Your task to perform on an android device: change timer sound Image 0: 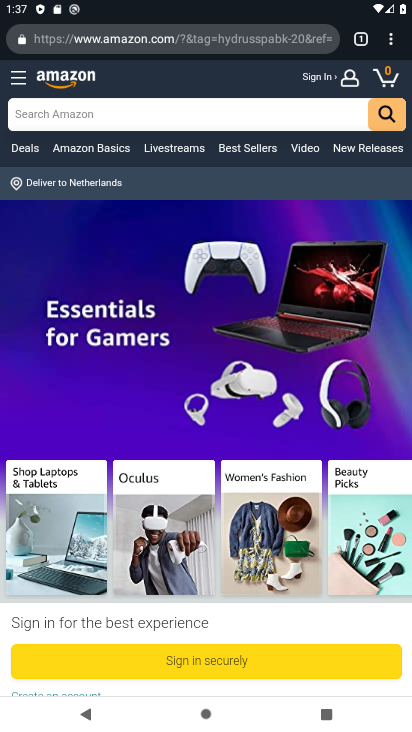
Step 0: press back button
Your task to perform on an android device: change timer sound Image 1: 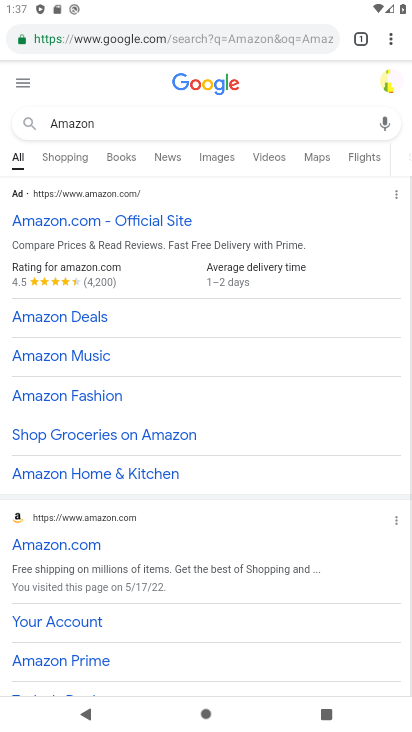
Step 1: press back button
Your task to perform on an android device: change timer sound Image 2: 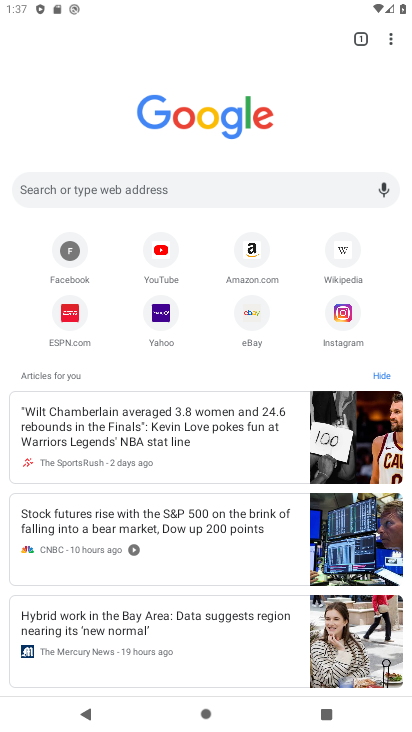
Step 2: press back button
Your task to perform on an android device: change timer sound Image 3: 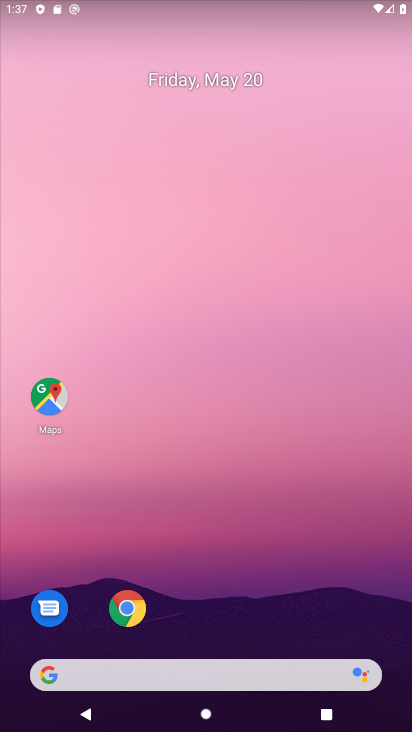
Step 3: drag from (240, 570) to (200, 64)
Your task to perform on an android device: change timer sound Image 4: 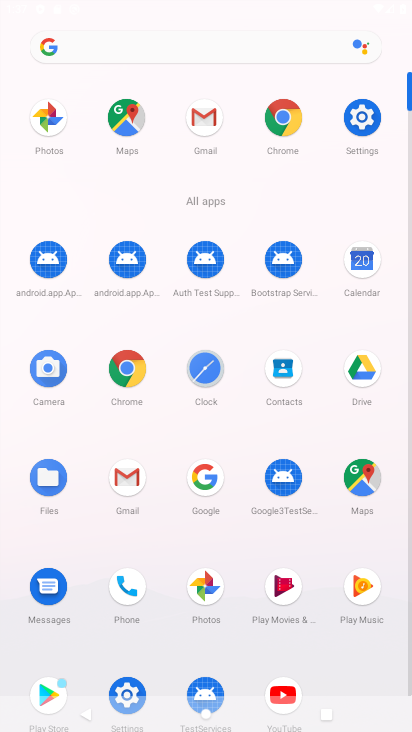
Step 4: click (206, 368)
Your task to perform on an android device: change timer sound Image 5: 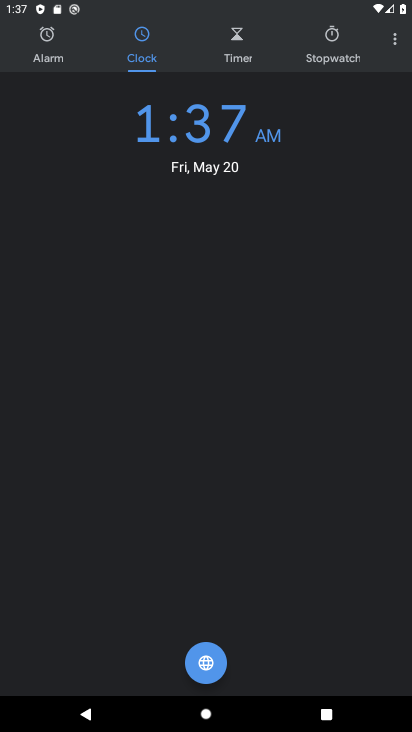
Step 5: click (396, 42)
Your task to perform on an android device: change timer sound Image 6: 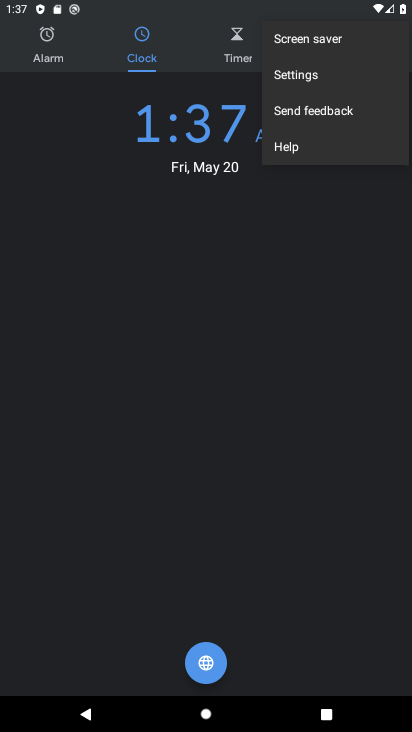
Step 6: click (293, 78)
Your task to perform on an android device: change timer sound Image 7: 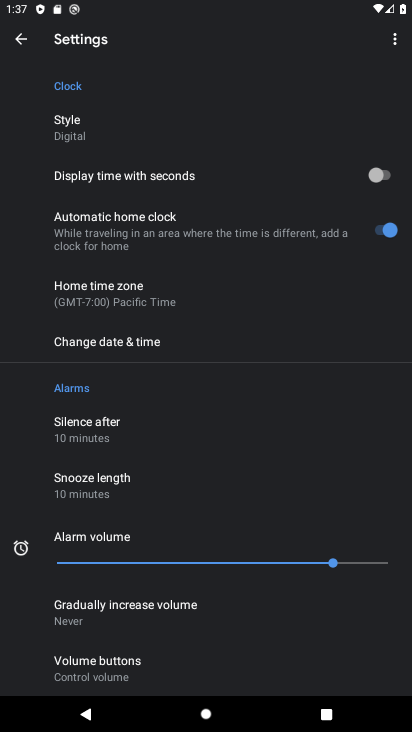
Step 7: drag from (174, 445) to (206, 323)
Your task to perform on an android device: change timer sound Image 8: 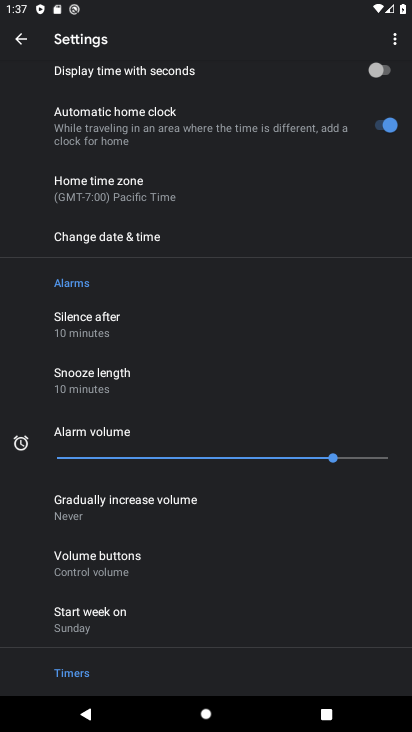
Step 8: drag from (185, 585) to (235, 395)
Your task to perform on an android device: change timer sound Image 9: 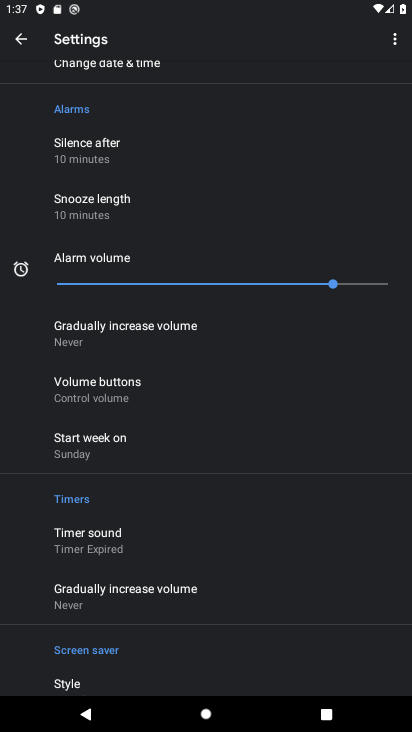
Step 9: click (98, 542)
Your task to perform on an android device: change timer sound Image 10: 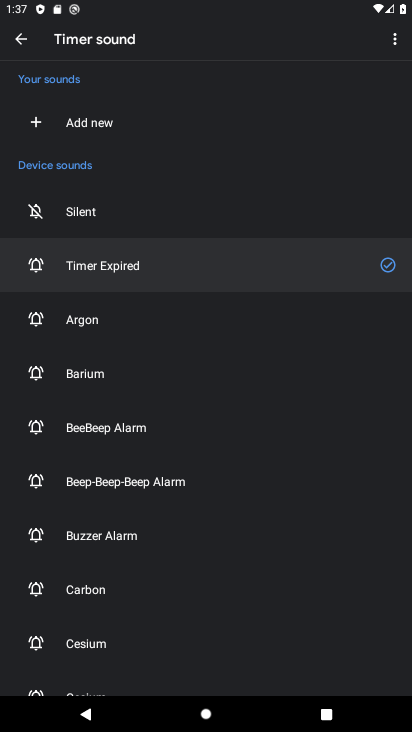
Step 10: drag from (172, 582) to (177, 332)
Your task to perform on an android device: change timer sound Image 11: 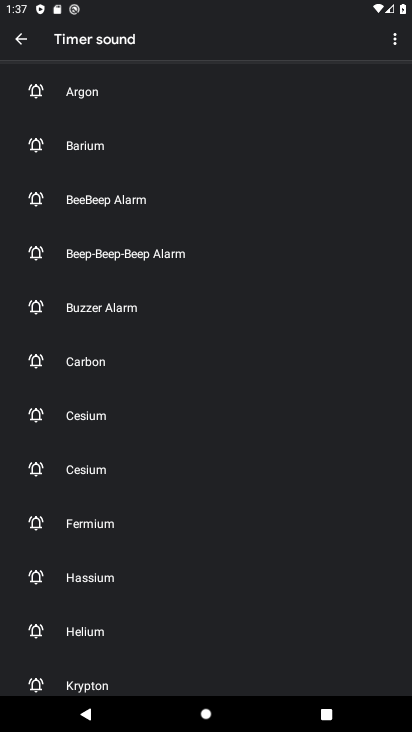
Step 11: drag from (185, 573) to (209, 299)
Your task to perform on an android device: change timer sound Image 12: 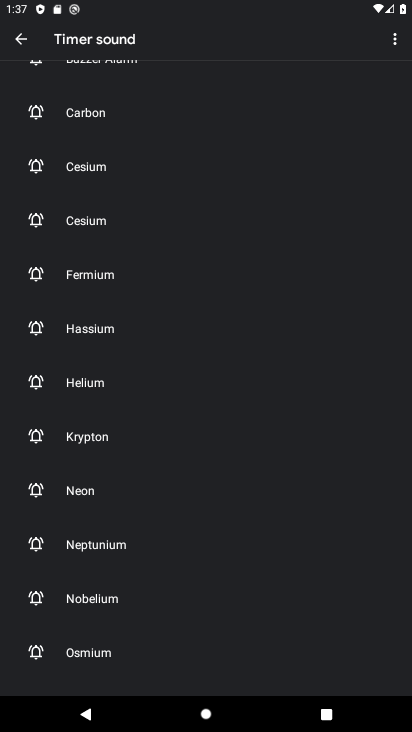
Step 12: drag from (188, 576) to (205, 291)
Your task to perform on an android device: change timer sound Image 13: 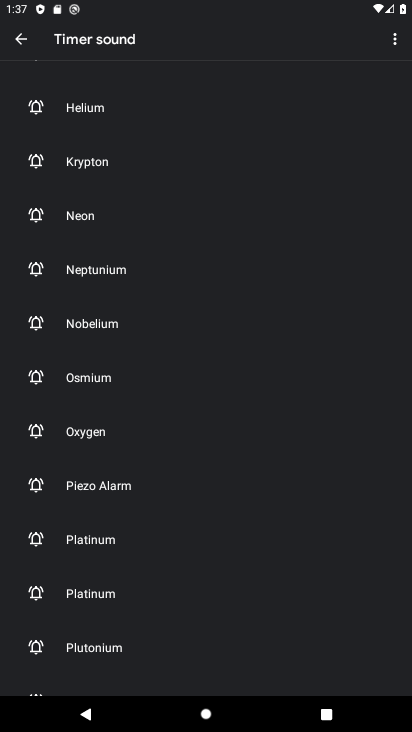
Step 13: drag from (170, 527) to (203, 287)
Your task to perform on an android device: change timer sound Image 14: 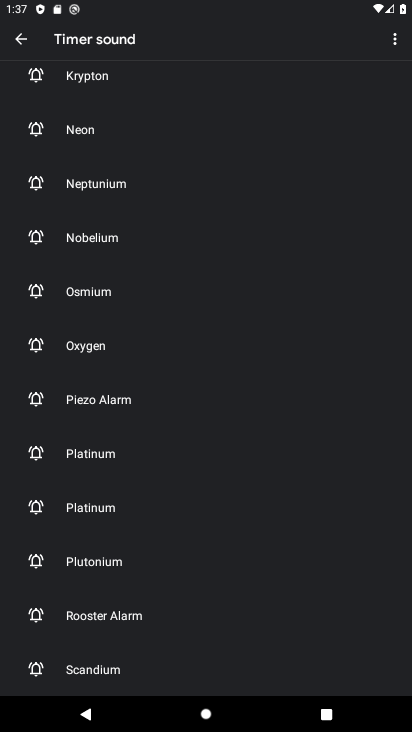
Step 14: click (101, 565)
Your task to perform on an android device: change timer sound Image 15: 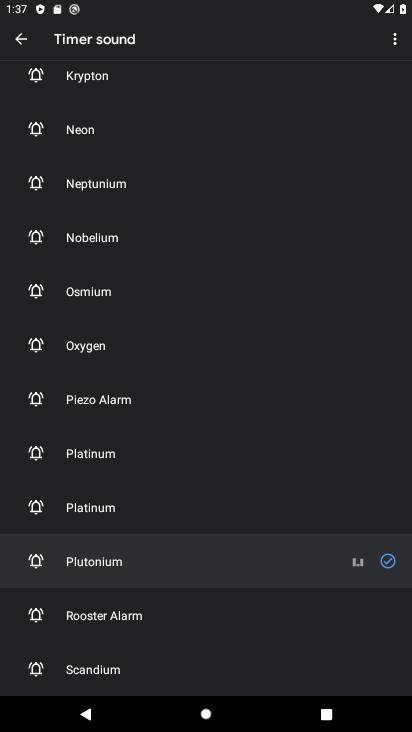
Step 15: task complete